Your task to perform on an android device: move an email to a new category in the gmail app Image 0: 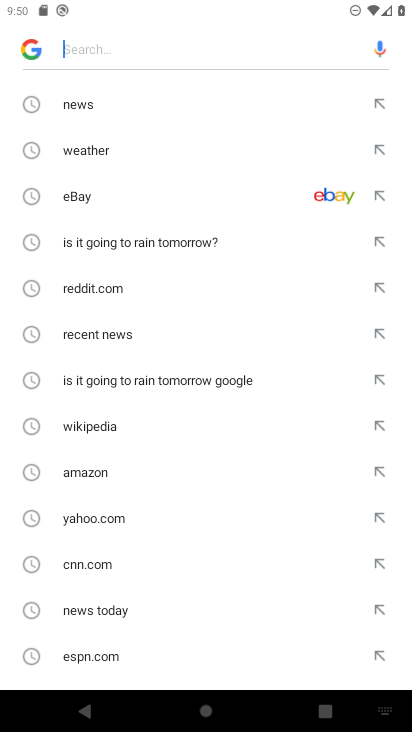
Step 0: press home button
Your task to perform on an android device: move an email to a new category in the gmail app Image 1: 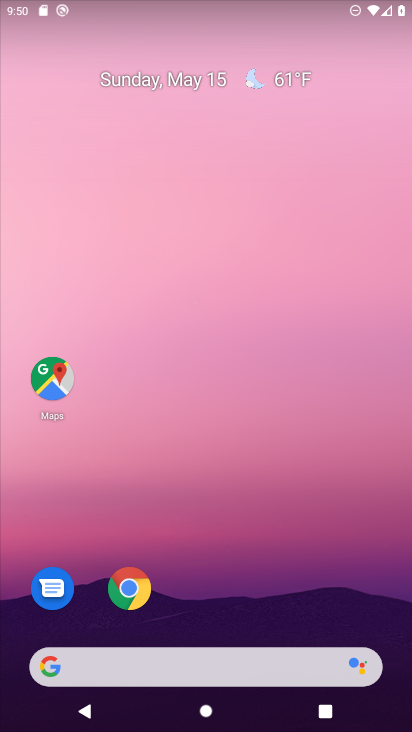
Step 1: drag from (185, 622) to (126, 5)
Your task to perform on an android device: move an email to a new category in the gmail app Image 2: 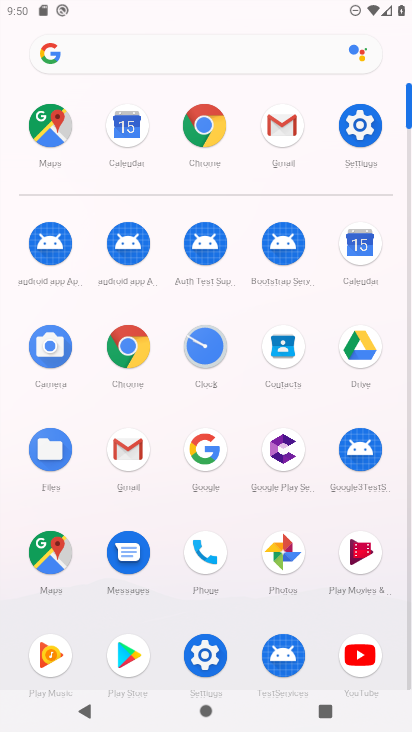
Step 2: click (123, 461)
Your task to perform on an android device: move an email to a new category in the gmail app Image 3: 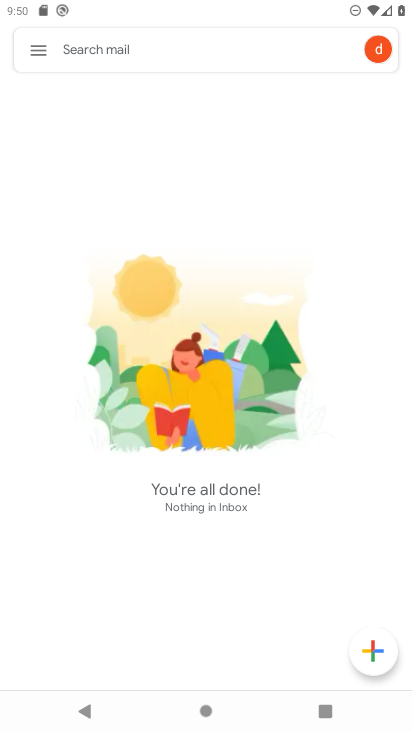
Step 3: click (27, 53)
Your task to perform on an android device: move an email to a new category in the gmail app Image 4: 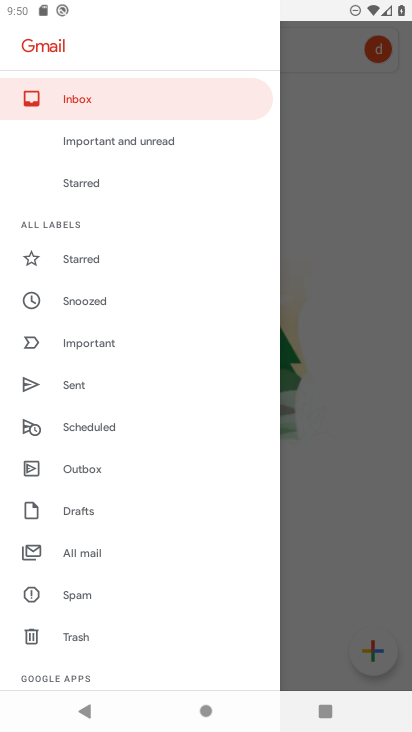
Step 4: click (62, 551)
Your task to perform on an android device: move an email to a new category in the gmail app Image 5: 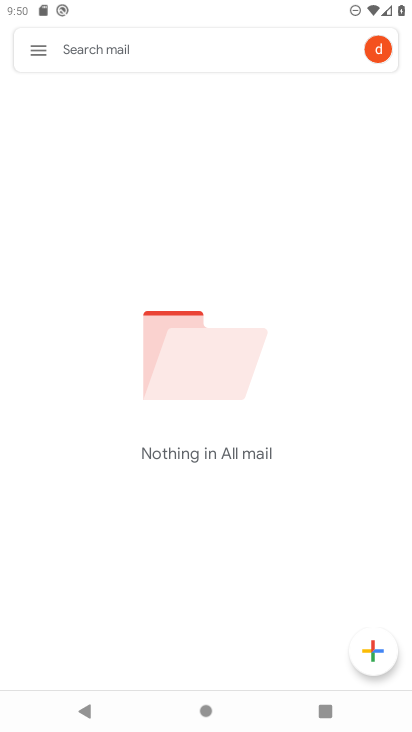
Step 5: task complete